Your task to perform on an android device: clear history in the chrome app Image 0: 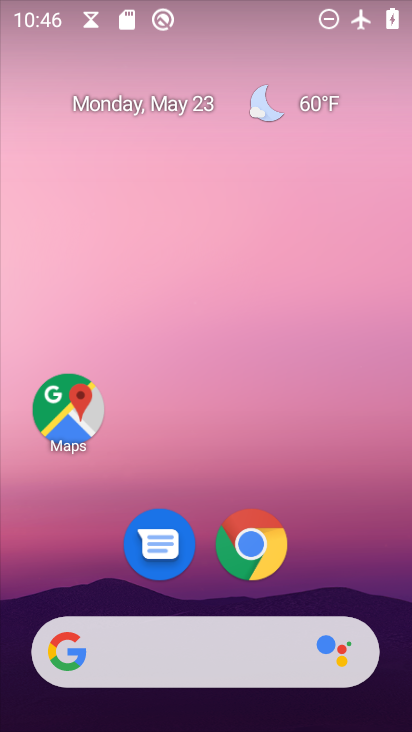
Step 0: drag from (319, 574) to (67, 111)
Your task to perform on an android device: clear history in the chrome app Image 1: 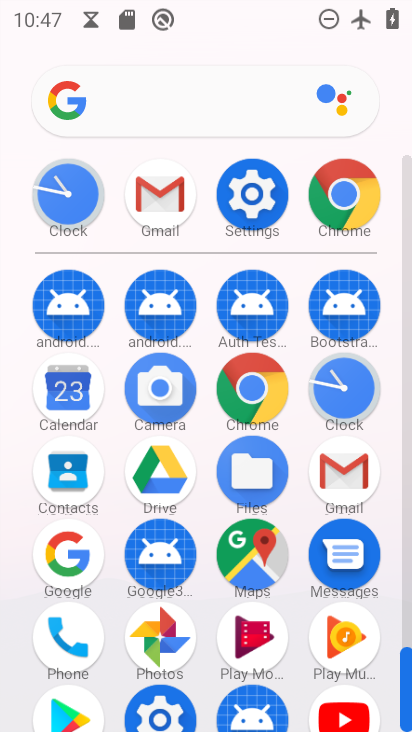
Step 1: click (351, 220)
Your task to perform on an android device: clear history in the chrome app Image 2: 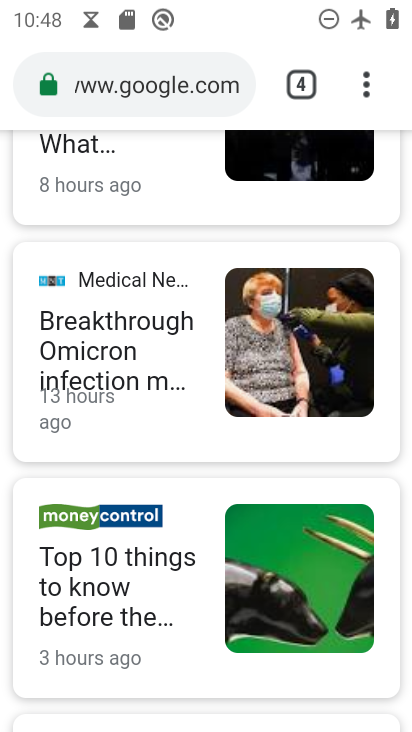
Step 2: drag from (143, 214) to (139, 635)
Your task to perform on an android device: clear history in the chrome app Image 3: 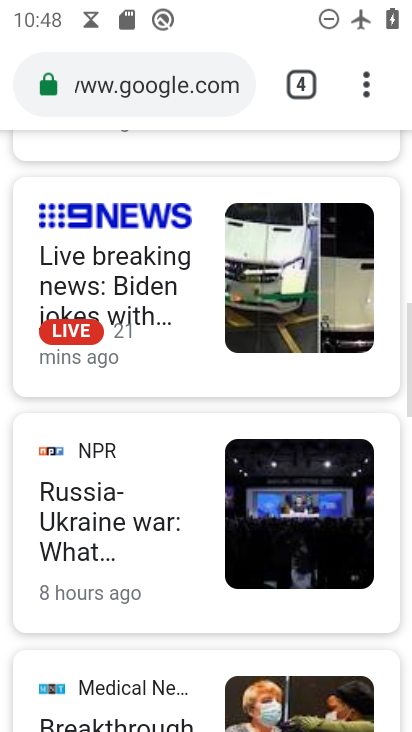
Step 3: drag from (169, 329) to (164, 640)
Your task to perform on an android device: clear history in the chrome app Image 4: 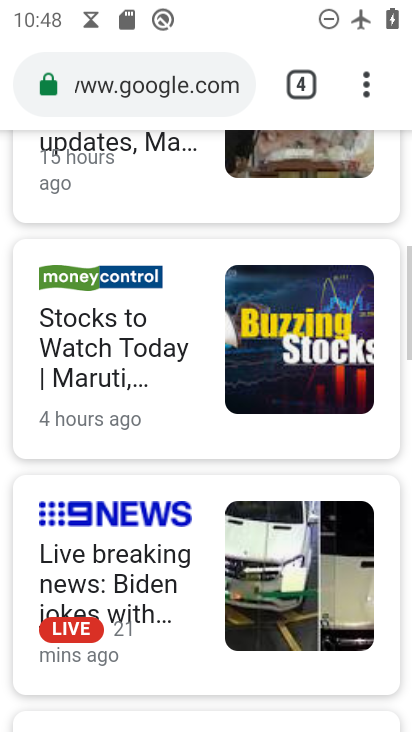
Step 4: drag from (124, 215) to (116, 599)
Your task to perform on an android device: clear history in the chrome app Image 5: 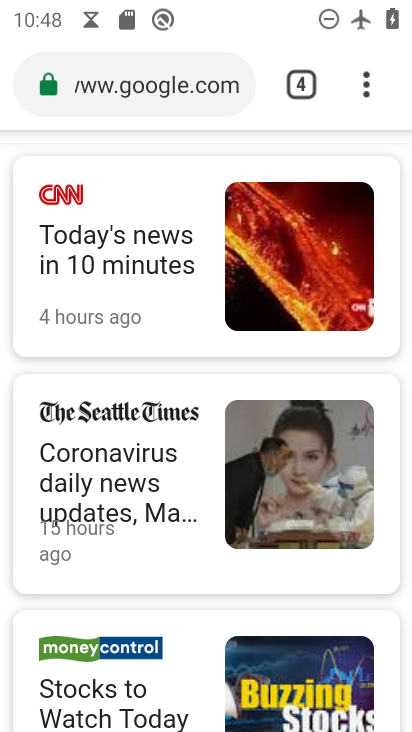
Step 5: click (366, 76)
Your task to perform on an android device: clear history in the chrome app Image 6: 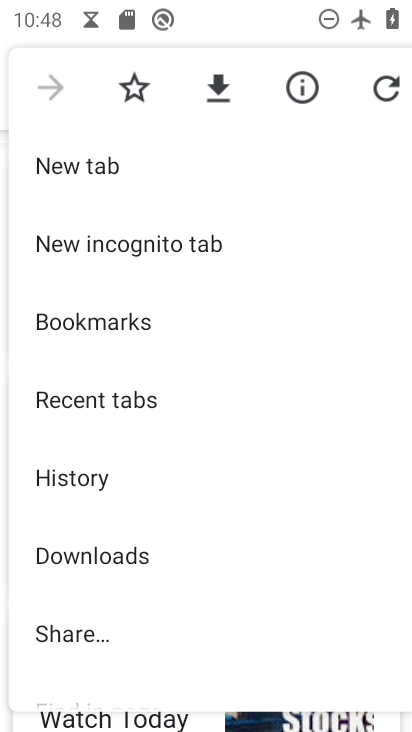
Step 6: click (87, 478)
Your task to perform on an android device: clear history in the chrome app Image 7: 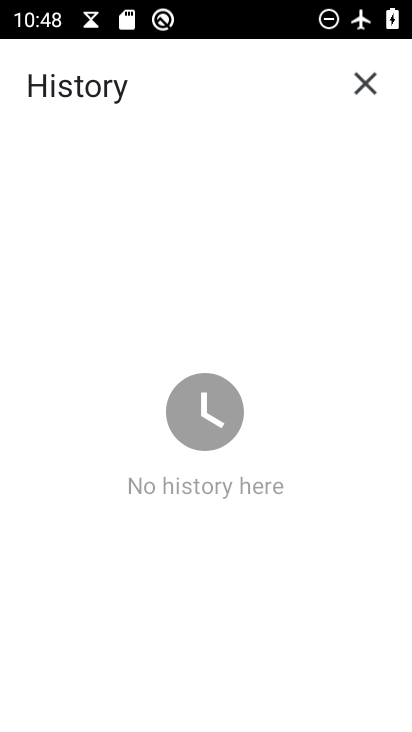
Step 7: task complete